Your task to perform on an android device: Go to battery settings Image 0: 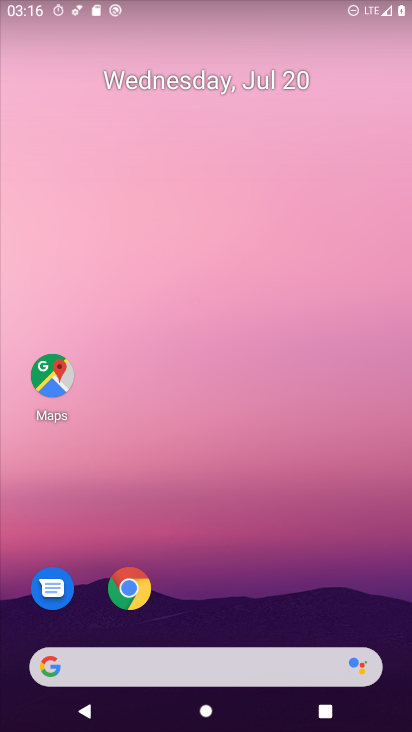
Step 0: drag from (212, 617) to (237, 8)
Your task to perform on an android device: Go to battery settings Image 1: 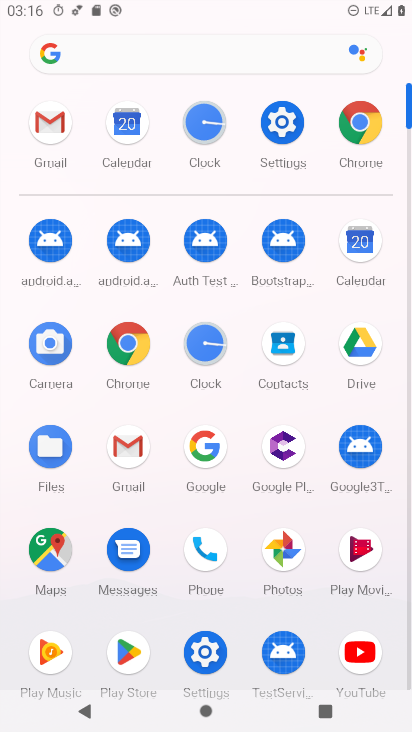
Step 1: click (278, 114)
Your task to perform on an android device: Go to battery settings Image 2: 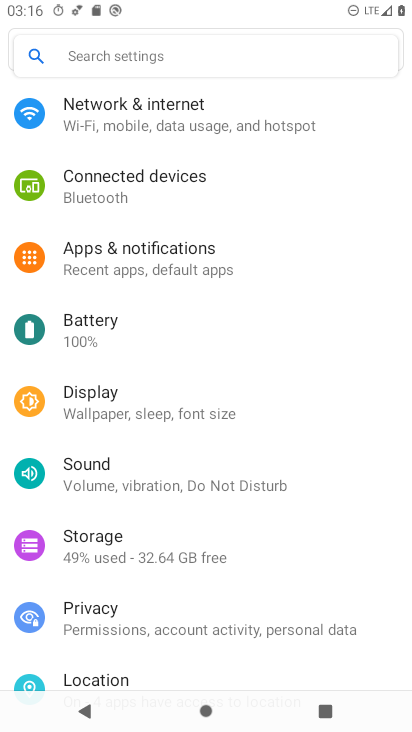
Step 2: click (102, 357)
Your task to perform on an android device: Go to battery settings Image 3: 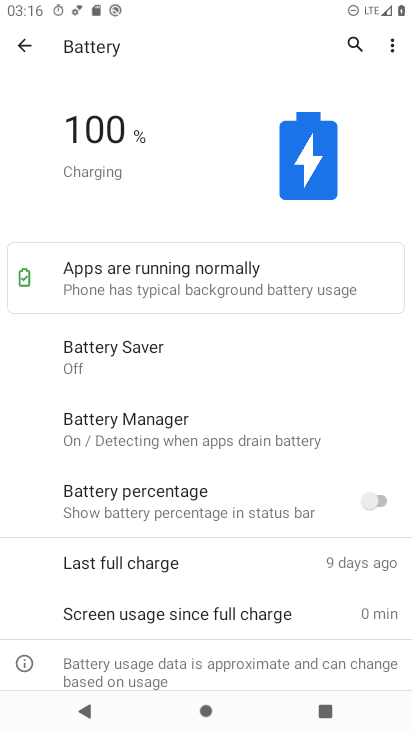
Step 3: task complete